Your task to perform on an android device: clear history in the chrome app Image 0: 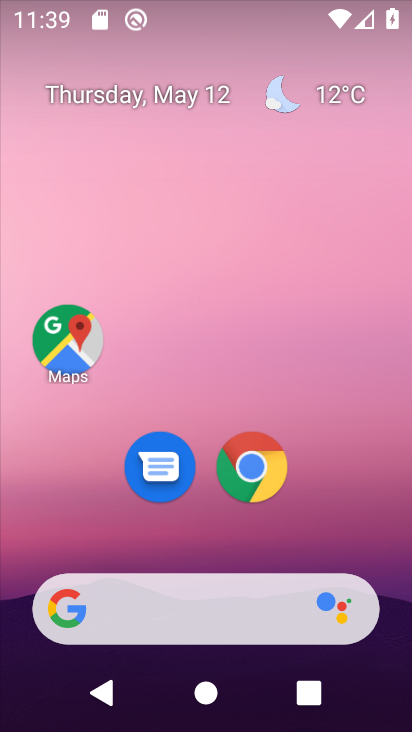
Step 0: click (252, 460)
Your task to perform on an android device: clear history in the chrome app Image 1: 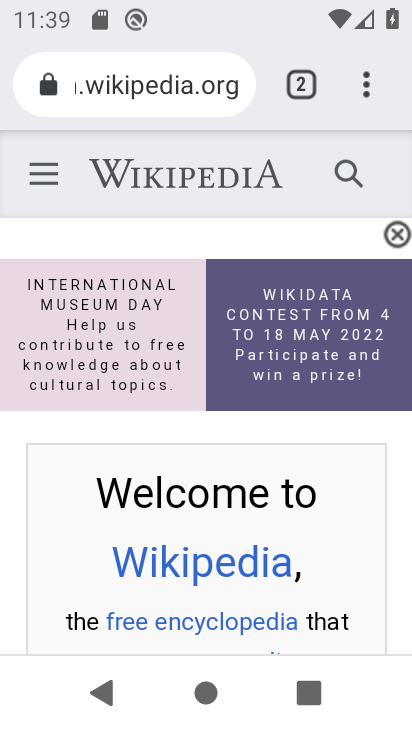
Step 1: click (362, 86)
Your task to perform on an android device: clear history in the chrome app Image 2: 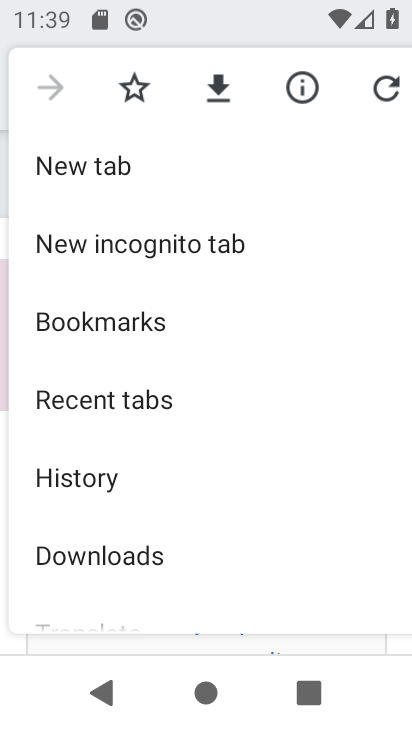
Step 2: click (104, 465)
Your task to perform on an android device: clear history in the chrome app Image 3: 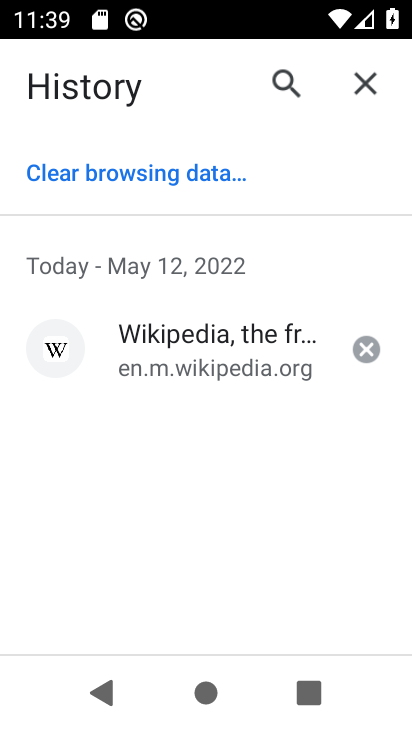
Step 3: click (88, 171)
Your task to perform on an android device: clear history in the chrome app Image 4: 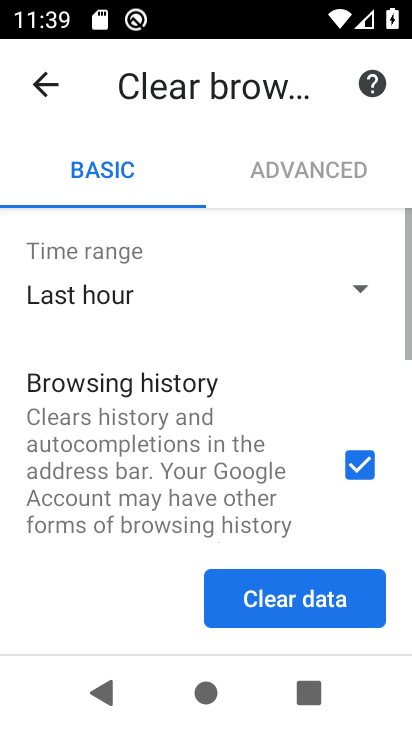
Step 4: click (320, 601)
Your task to perform on an android device: clear history in the chrome app Image 5: 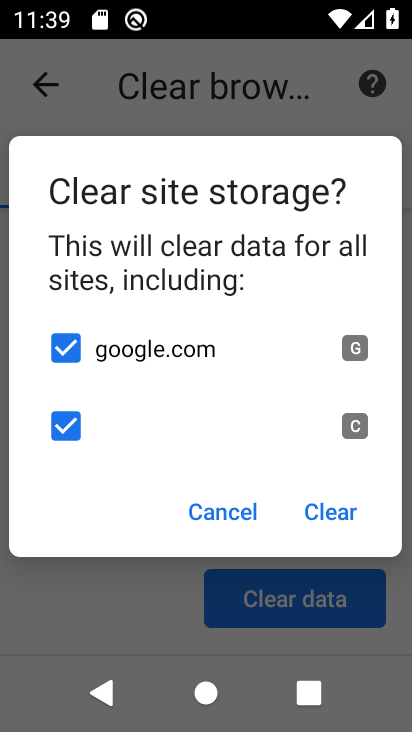
Step 5: click (323, 513)
Your task to perform on an android device: clear history in the chrome app Image 6: 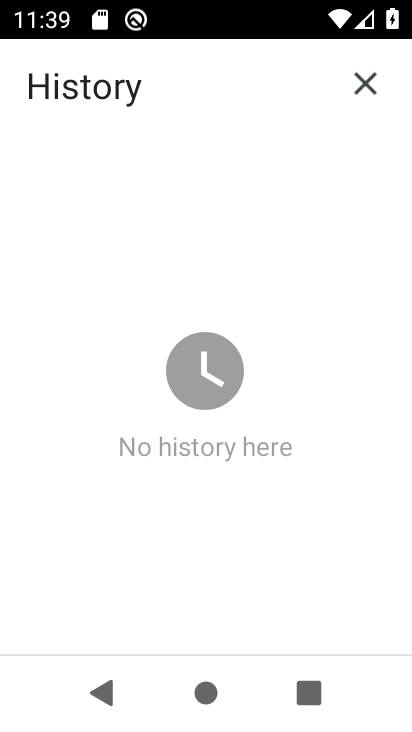
Step 6: task complete